Your task to perform on an android device: turn pop-ups off in chrome Image 0: 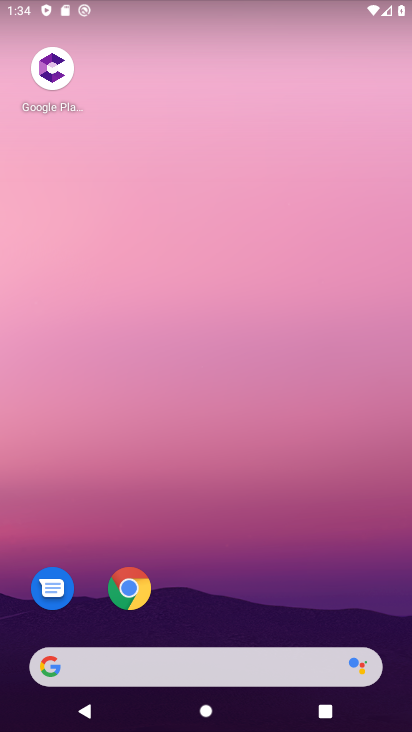
Step 0: drag from (263, 456) to (240, 84)
Your task to perform on an android device: turn pop-ups off in chrome Image 1: 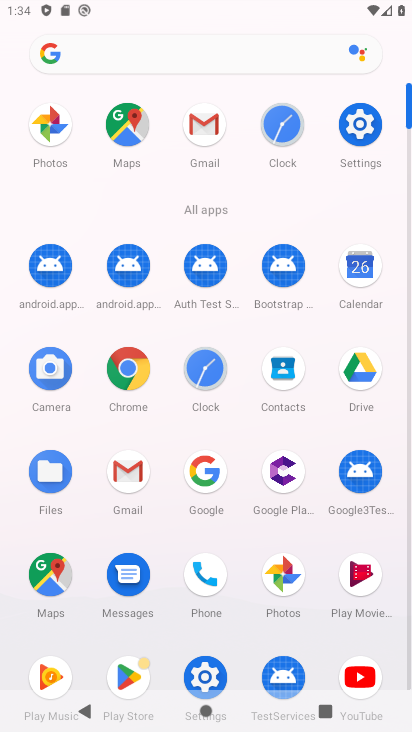
Step 1: click (125, 379)
Your task to perform on an android device: turn pop-ups off in chrome Image 2: 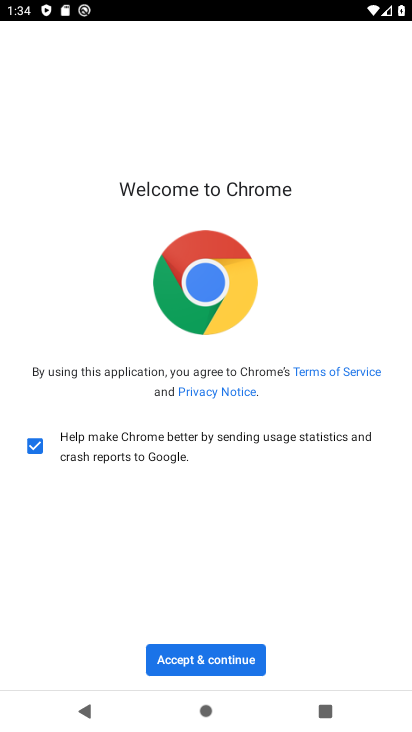
Step 2: click (235, 644)
Your task to perform on an android device: turn pop-ups off in chrome Image 3: 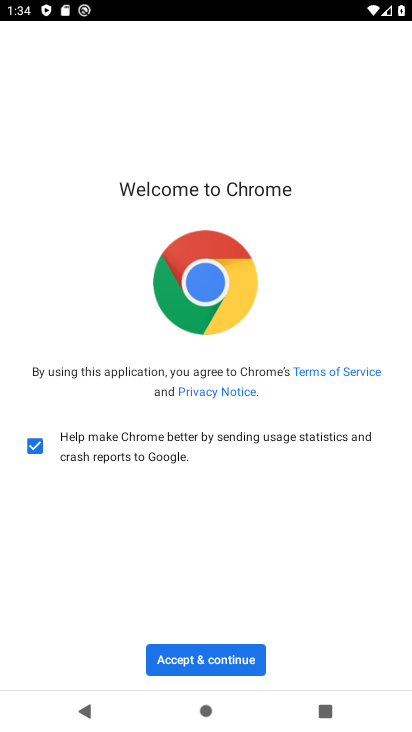
Step 3: click (240, 662)
Your task to perform on an android device: turn pop-ups off in chrome Image 4: 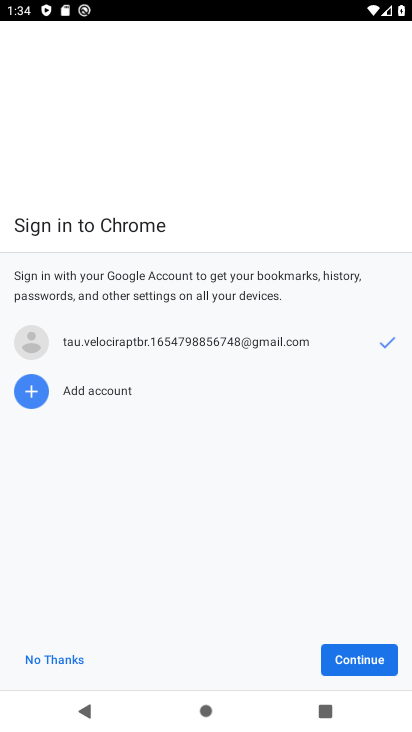
Step 4: click (39, 671)
Your task to perform on an android device: turn pop-ups off in chrome Image 5: 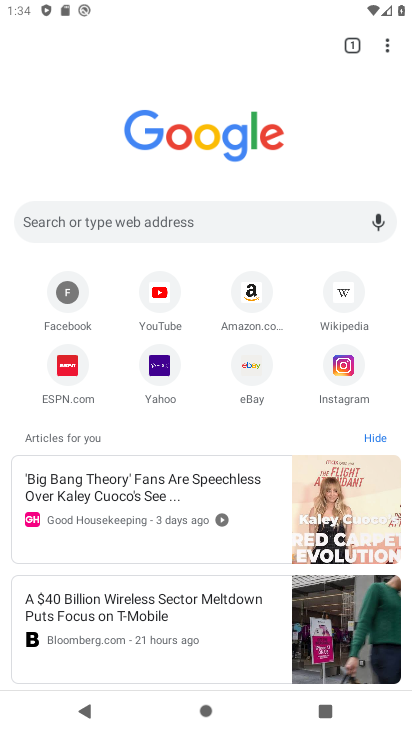
Step 5: drag from (389, 52) to (192, 400)
Your task to perform on an android device: turn pop-ups off in chrome Image 6: 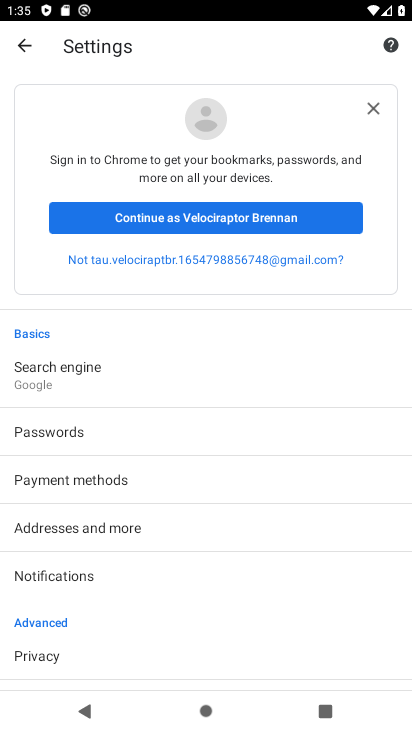
Step 6: drag from (95, 587) to (229, 194)
Your task to perform on an android device: turn pop-ups off in chrome Image 7: 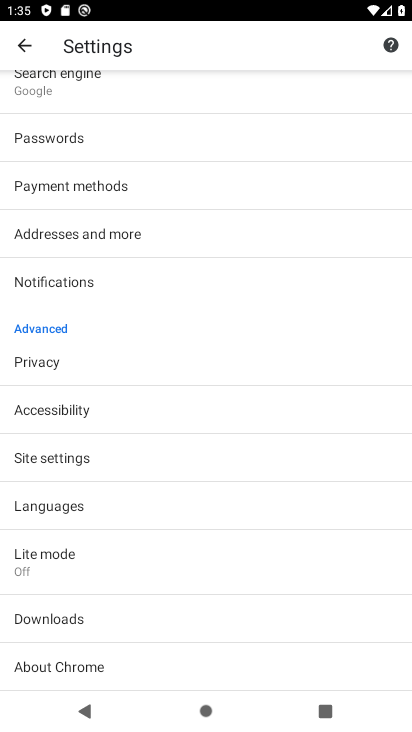
Step 7: click (80, 461)
Your task to perform on an android device: turn pop-ups off in chrome Image 8: 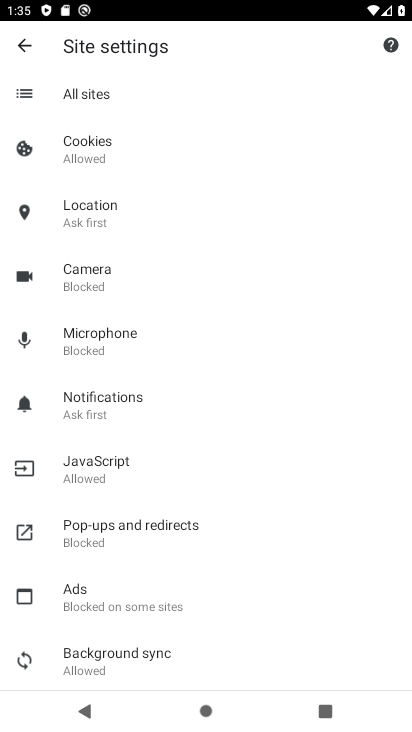
Step 8: click (124, 535)
Your task to perform on an android device: turn pop-ups off in chrome Image 9: 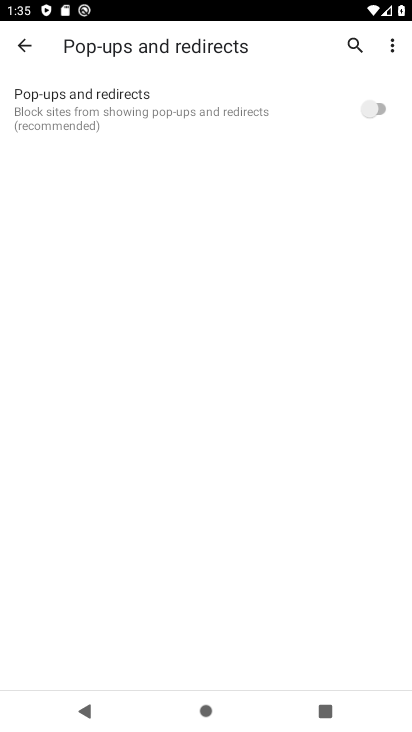
Step 9: task complete